Your task to perform on an android device: What's the weather going to be this weekend? Image 0: 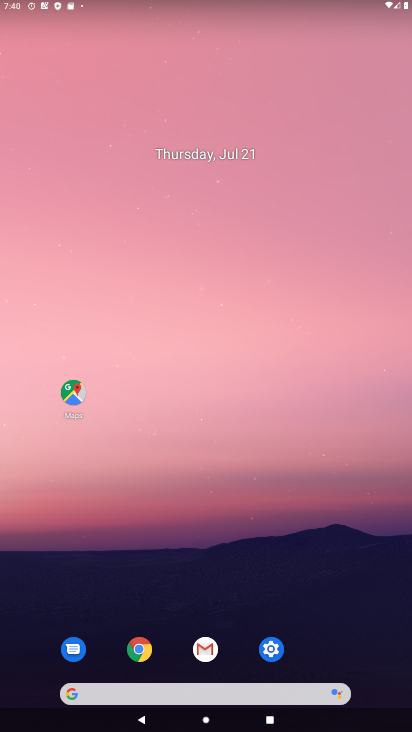
Step 0: click (154, 694)
Your task to perform on an android device: What's the weather going to be this weekend? Image 1: 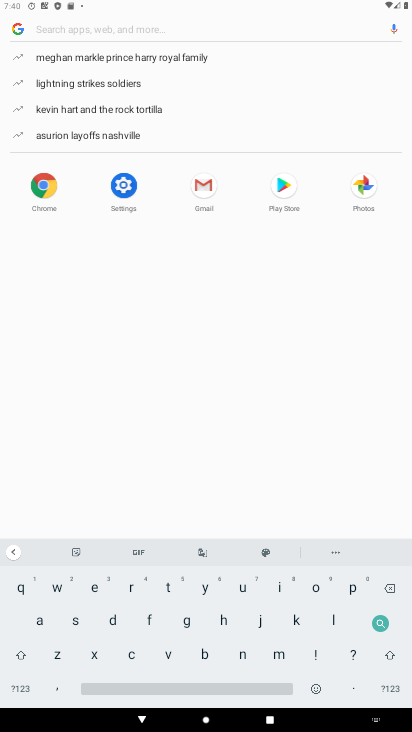
Step 1: click (54, 592)
Your task to perform on an android device: What's the weather going to be this weekend? Image 2: 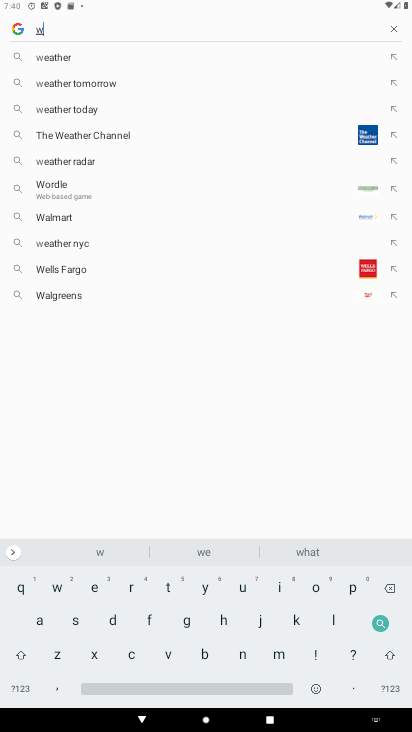
Step 2: click (225, 619)
Your task to perform on an android device: What's the weather going to be this weekend? Image 3: 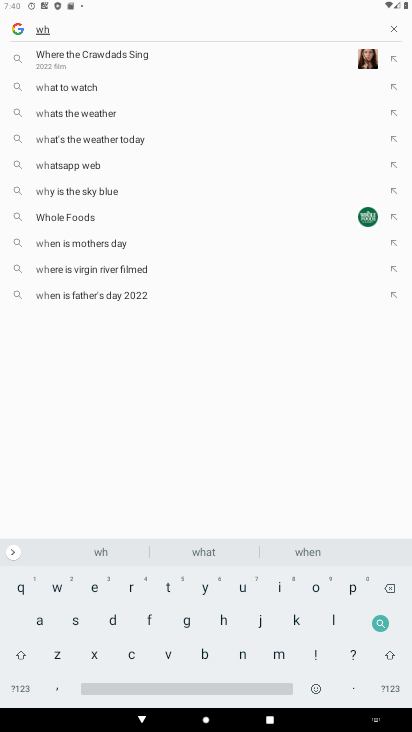
Step 3: click (34, 616)
Your task to perform on an android device: What's the weather going to be this weekend? Image 4: 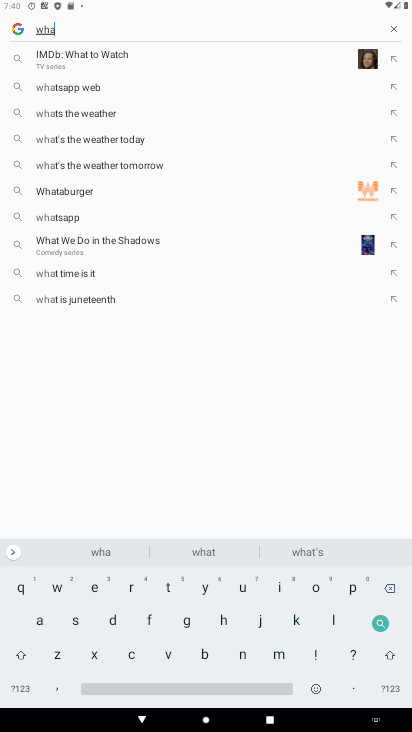
Step 4: click (300, 555)
Your task to perform on an android device: What's the weather going to be this weekend? Image 5: 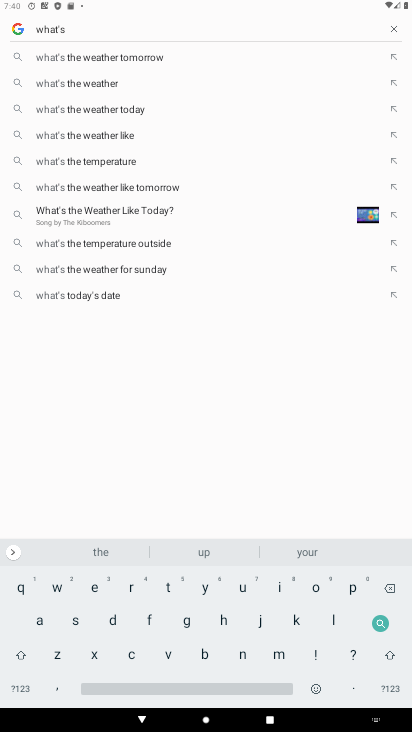
Step 5: click (107, 554)
Your task to perform on an android device: What's the weather going to be this weekend? Image 6: 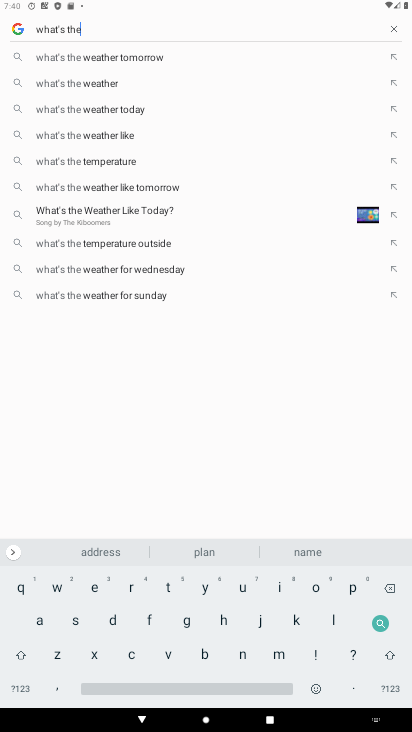
Step 6: click (53, 591)
Your task to perform on an android device: What's the weather going to be this weekend? Image 7: 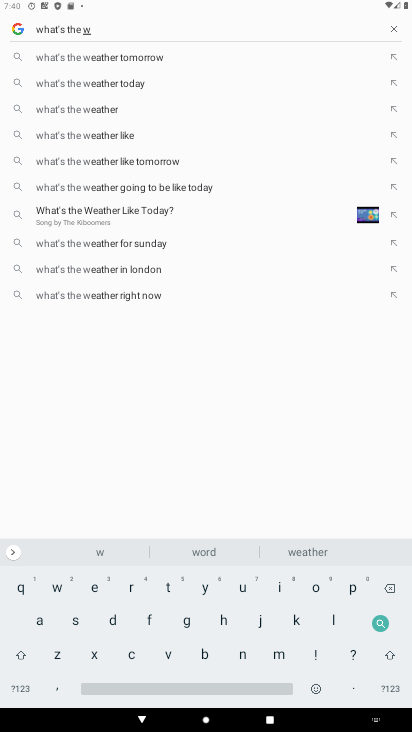
Step 7: click (292, 548)
Your task to perform on an android device: What's the weather going to be this weekend? Image 8: 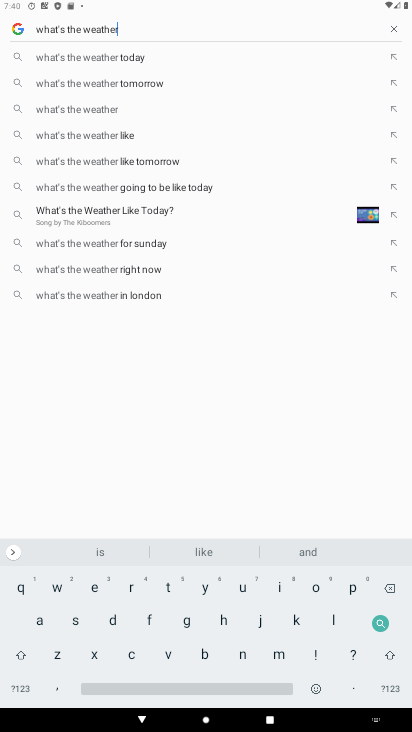
Step 8: click (184, 622)
Your task to perform on an android device: What's the weather going to be this weekend? Image 9: 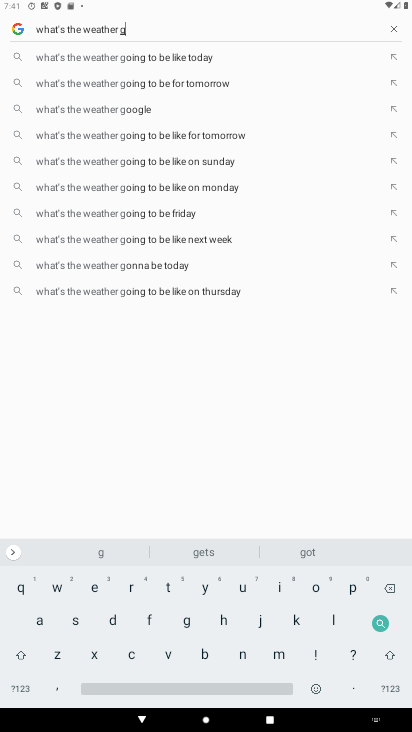
Step 9: click (312, 586)
Your task to perform on an android device: What's the weather going to be this weekend? Image 10: 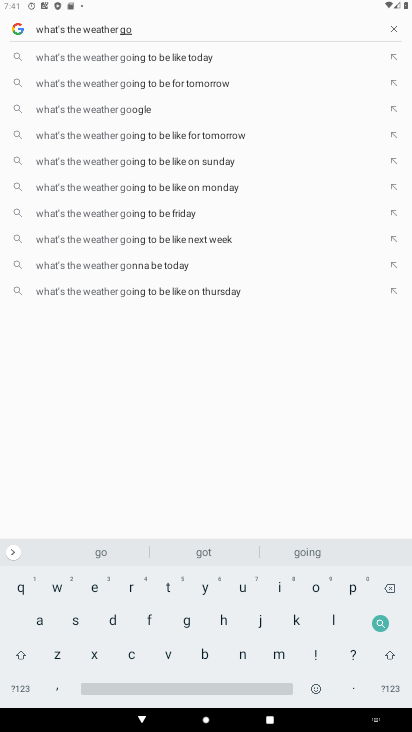
Step 10: click (301, 550)
Your task to perform on an android device: What's the weather going to be this weekend? Image 11: 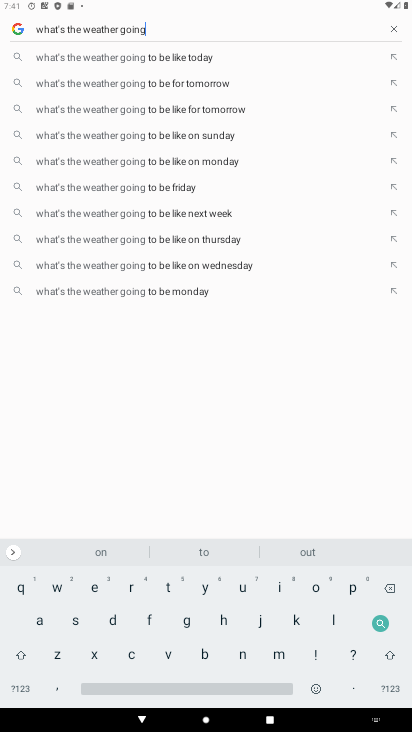
Step 11: click (206, 549)
Your task to perform on an android device: What's the weather going to be this weekend? Image 12: 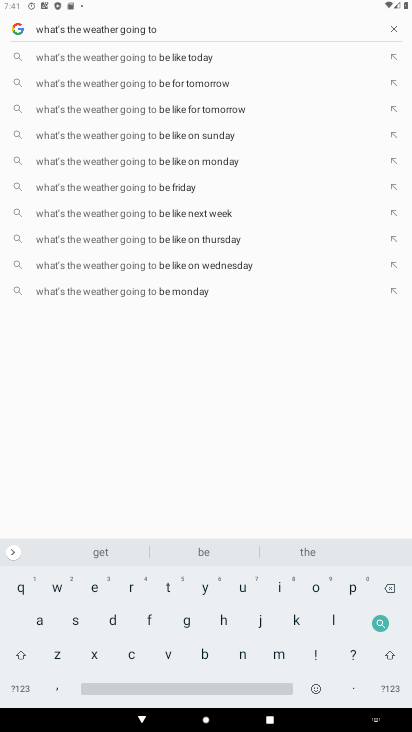
Step 12: click (207, 549)
Your task to perform on an android device: What's the weather going to be this weekend? Image 13: 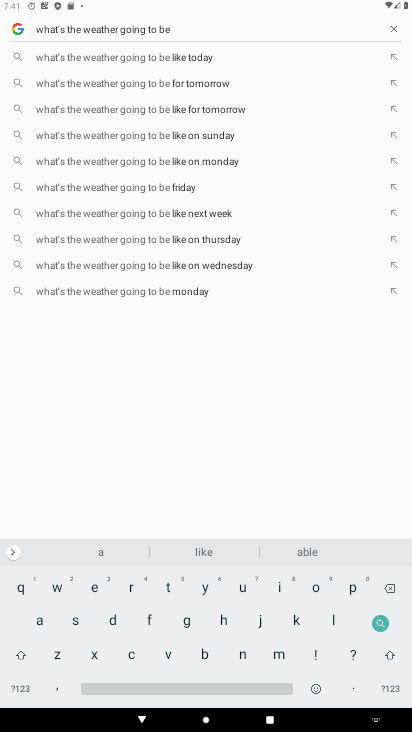
Step 13: click (165, 588)
Your task to perform on an android device: What's the weather going to be this weekend? Image 14: 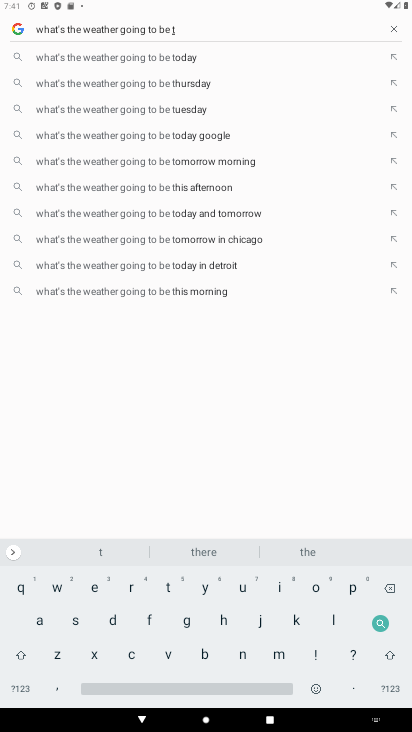
Step 14: click (223, 622)
Your task to perform on an android device: What's the weather going to be this weekend? Image 15: 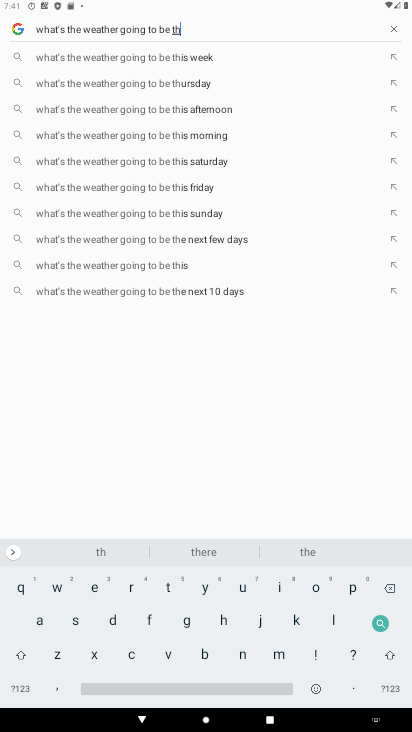
Step 15: click (276, 583)
Your task to perform on an android device: What's the weather going to be this weekend? Image 16: 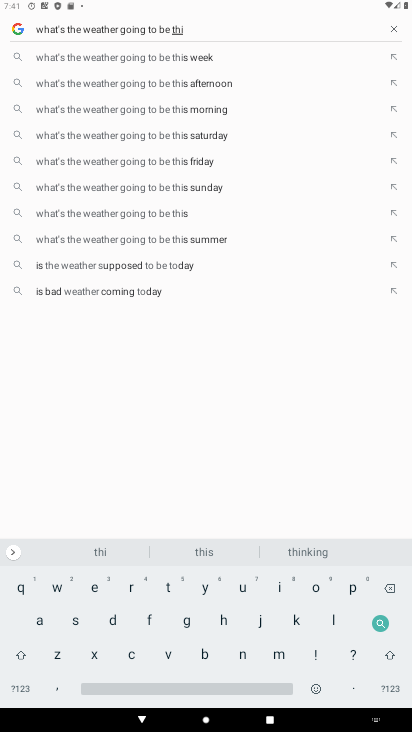
Step 16: click (211, 551)
Your task to perform on an android device: What's the weather going to be this weekend? Image 17: 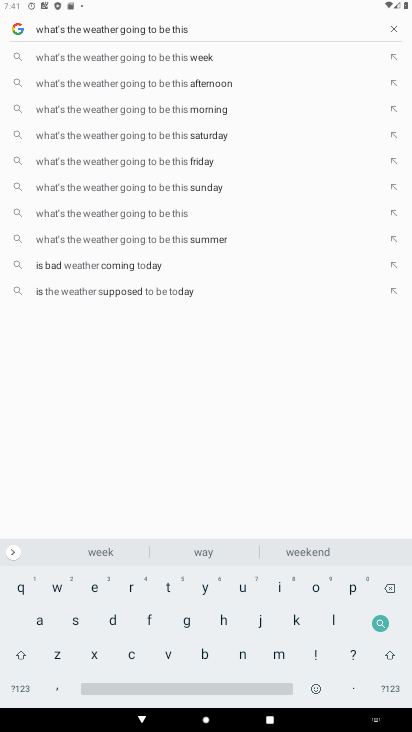
Step 17: click (291, 549)
Your task to perform on an android device: What's the weather going to be this weekend? Image 18: 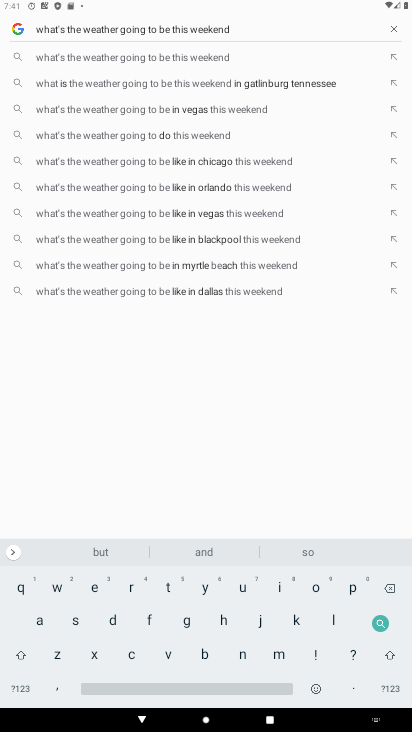
Step 18: click (210, 56)
Your task to perform on an android device: What's the weather going to be this weekend? Image 19: 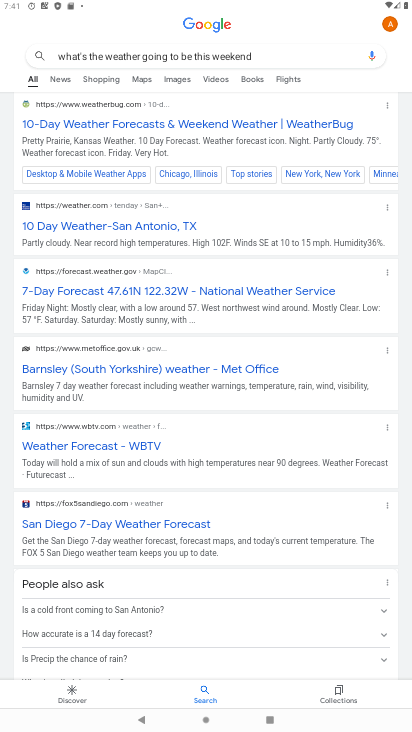
Step 19: task complete